Your task to perform on an android device: Do I have any events tomorrow? Image 0: 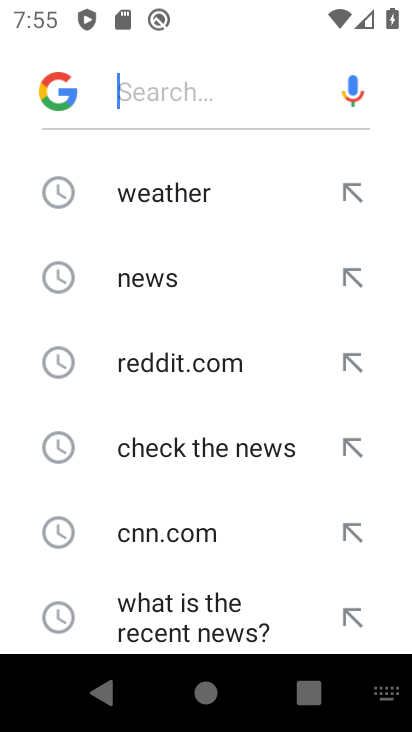
Step 0: press home button
Your task to perform on an android device: Do I have any events tomorrow? Image 1: 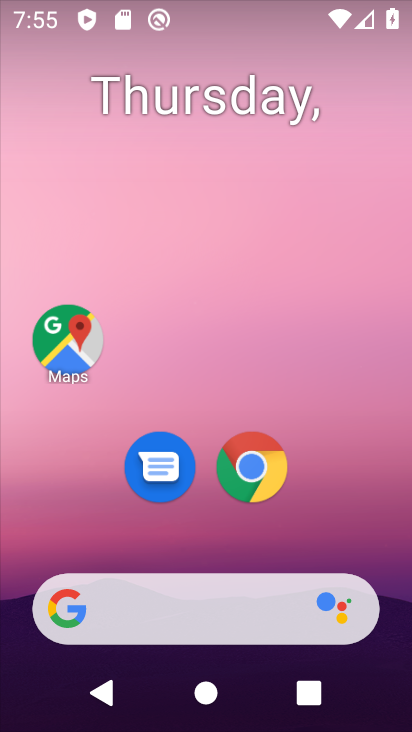
Step 1: drag from (234, 519) to (319, 45)
Your task to perform on an android device: Do I have any events tomorrow? Image 2: 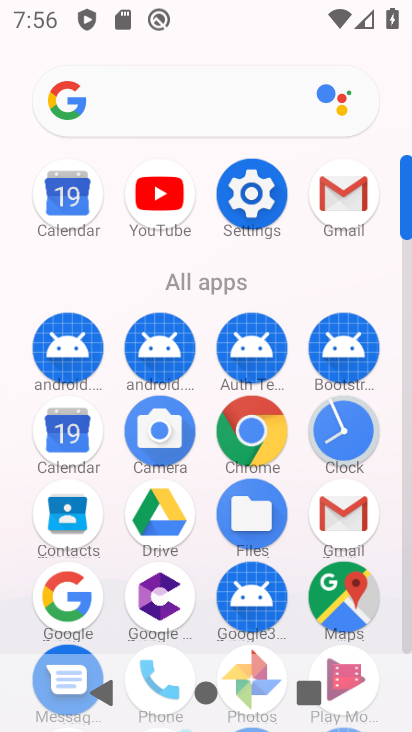
Step 2: click (82, 440)
Your task to perform on an android device: Do I have any events tomorrow? Image 3: 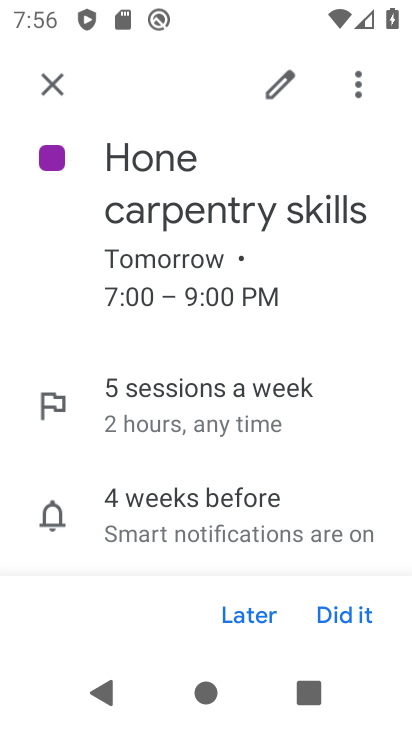
Step 3: click (269, 596)
Your task to perform on an android device: Do I have any events tomorrow? Image 4: 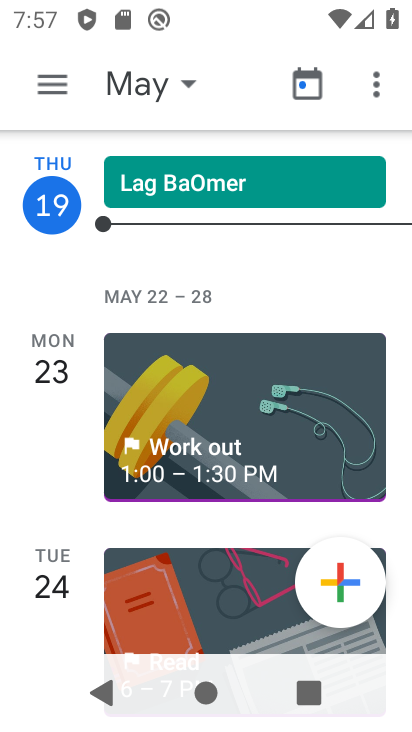
Step 4: task complete